Your task to perform on an android device: toggle sleep mode Image 0: 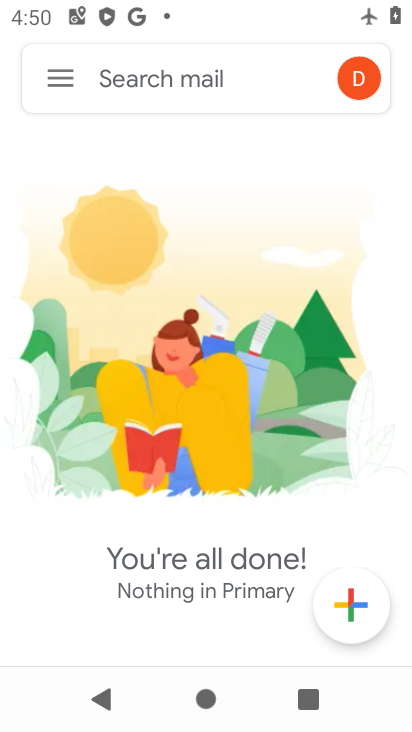
Step 0: press home button
Your task to perform on an android device: toggle sleep mode Image 1: 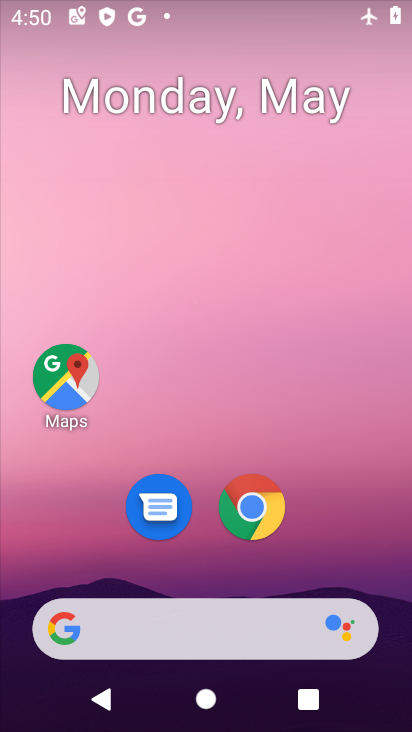
Step 1: drag from (381, 554) to (400, 100)
Your task to perform on an android device: toggle sleep mode Image 2: 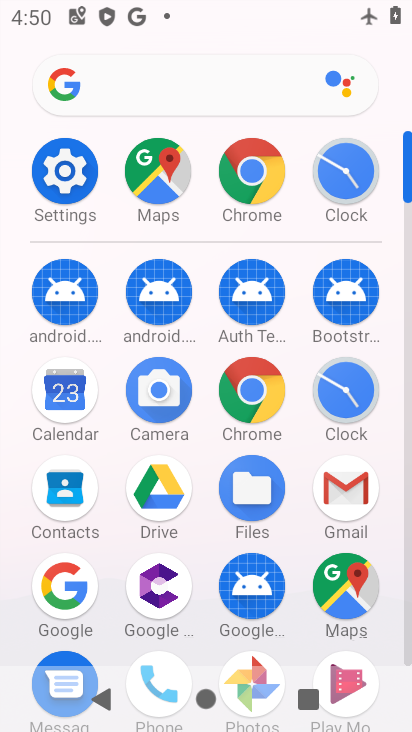
Step 2: click (68, 175)
Your task to perform on an android device: toggle sleep mode Image 3: 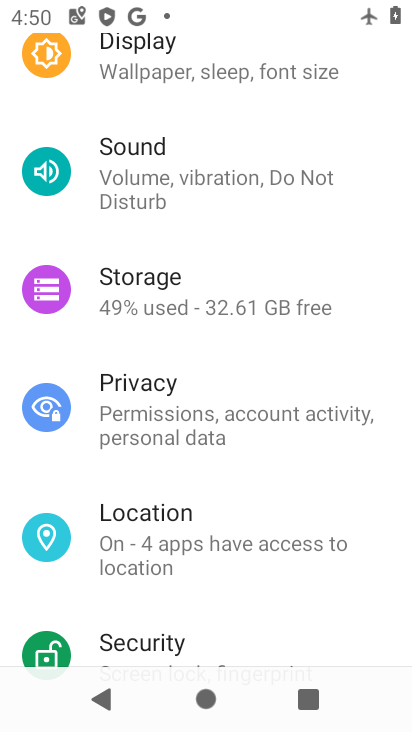
Step 3: drag from (159, 217) to (183, 658)
Your task to perform on an android device: toggle sleep mode Image 4: 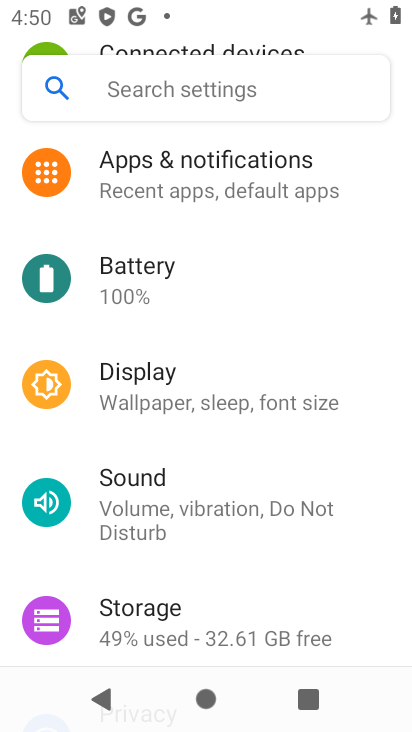
Step 4: click (144, 367)
Your task to perform on an android device: toggle sleep mode Image 5: 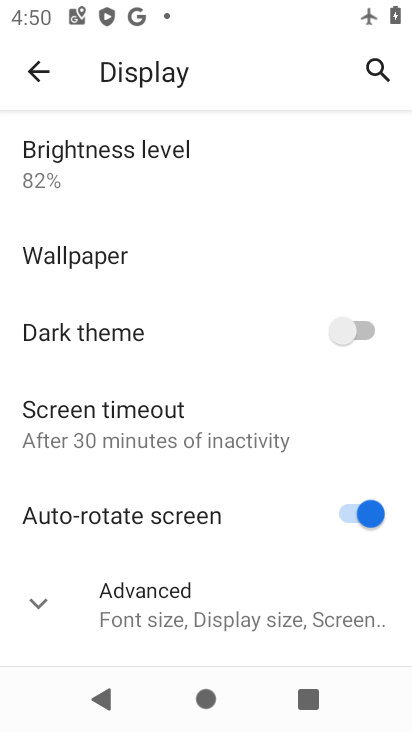
Step 5: drag from (126, 184) to (174, 588)
Your task to perform on an android device: toggle sleep mode Image 6: 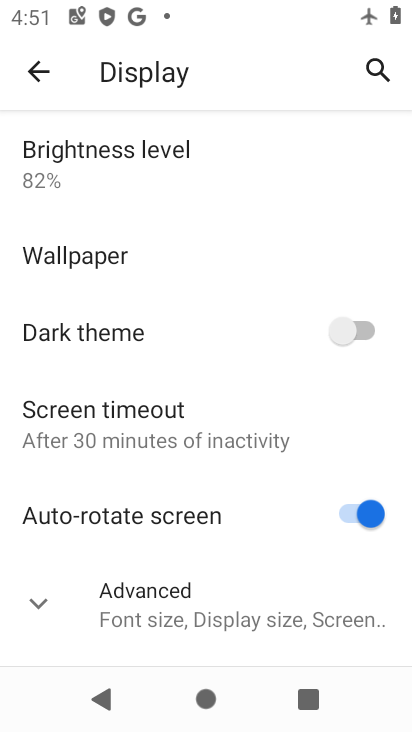
Step 6: click (126, 431)
Your task to perform on an android device: toggle sleep mode Image 7: 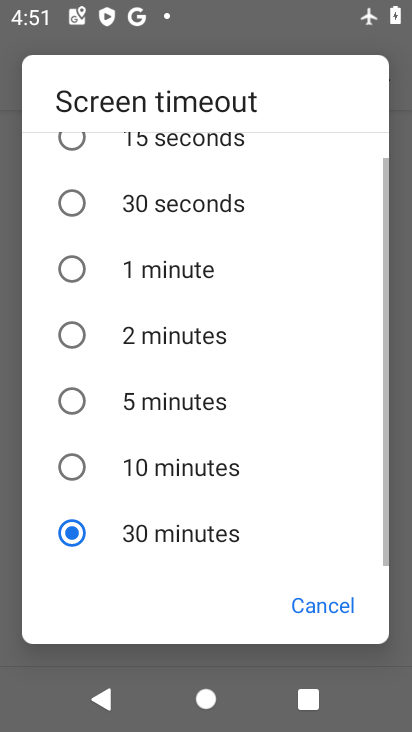
Step 7: click (108, 405)
Your task to perform on an android device: toggle sleep mode Image 8: 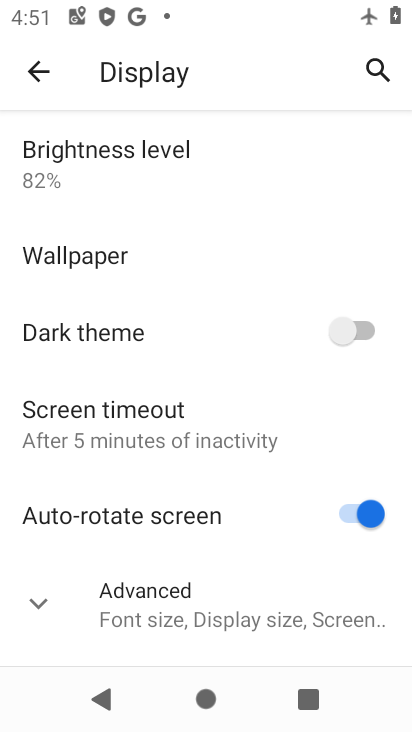
Step 8: task complete